Your task to perform on an android device: Open calendar and show me the first week of next month Image 0: 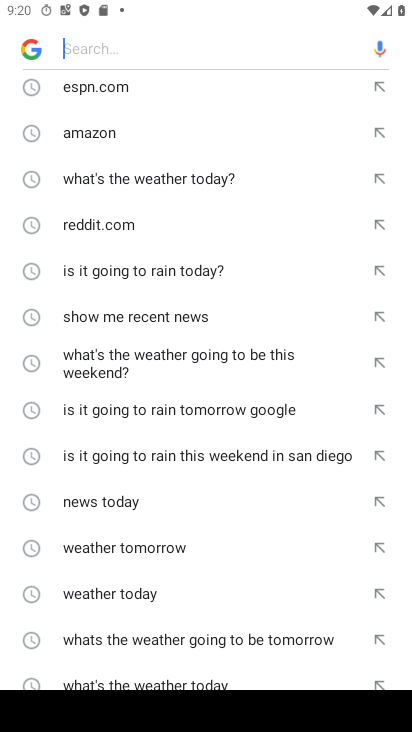
Step 0: press home button
Your task to perform on an android device: Open calendar and show me the first week of next month Image 1: 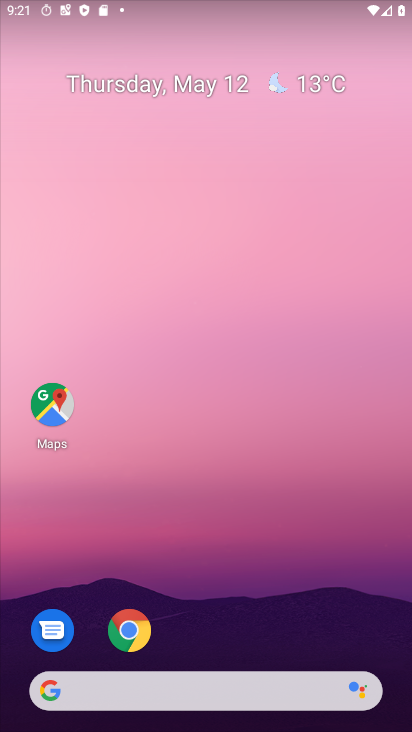
Step 1: drag from (212, 680) to (228, 98)
Your task to perform on an android device: Open calendar and show me the first week of next month Image 2: 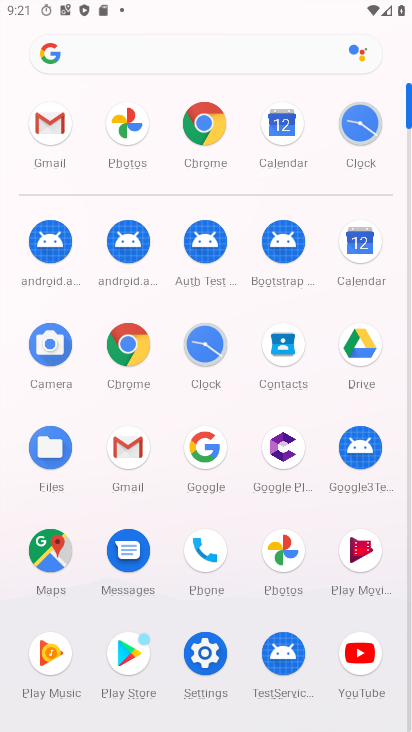
Step 2: click (360, 259)
Your task to perform on an android device: Open calendar and show me the first week of next month Image 3: 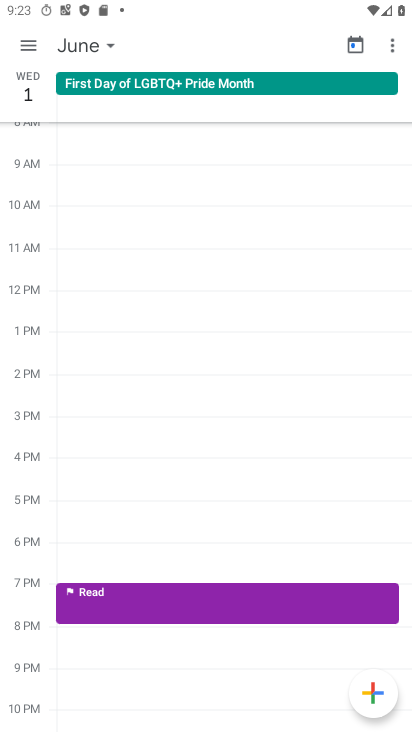
Step 3: click (32, 42)
Your task to perform on an android device: Open calendar and show me the first week of next month Image 4: 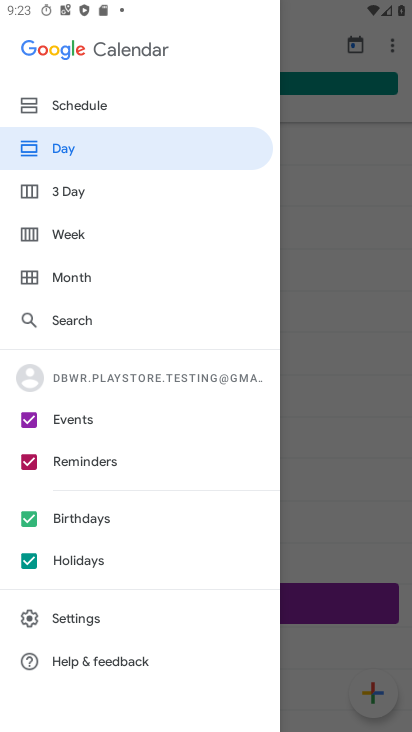
Step 4: click (90, 237)
Your task to perform on an android device: Open calendar and show me the first week of next month Image 5: 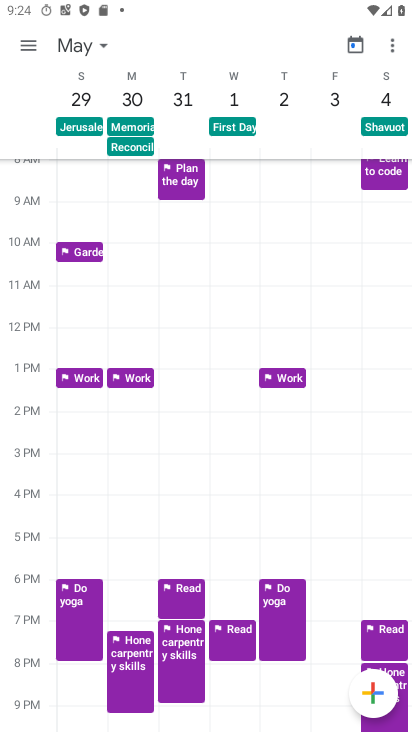
Step 5: task complete